Your task to perform on an android device: Where can I buy a nice beach umbrella? Image 0: 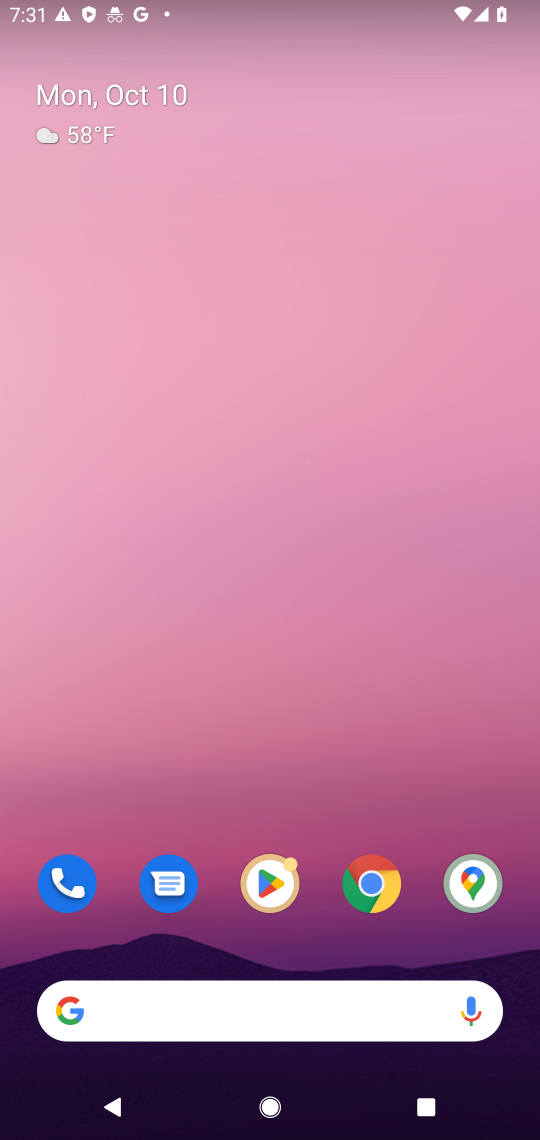
Step 0: drag from (213, 915) to (287, 520)
Your task to perform on an android device: Where can I buy a nice beach umbrella? Image 1: 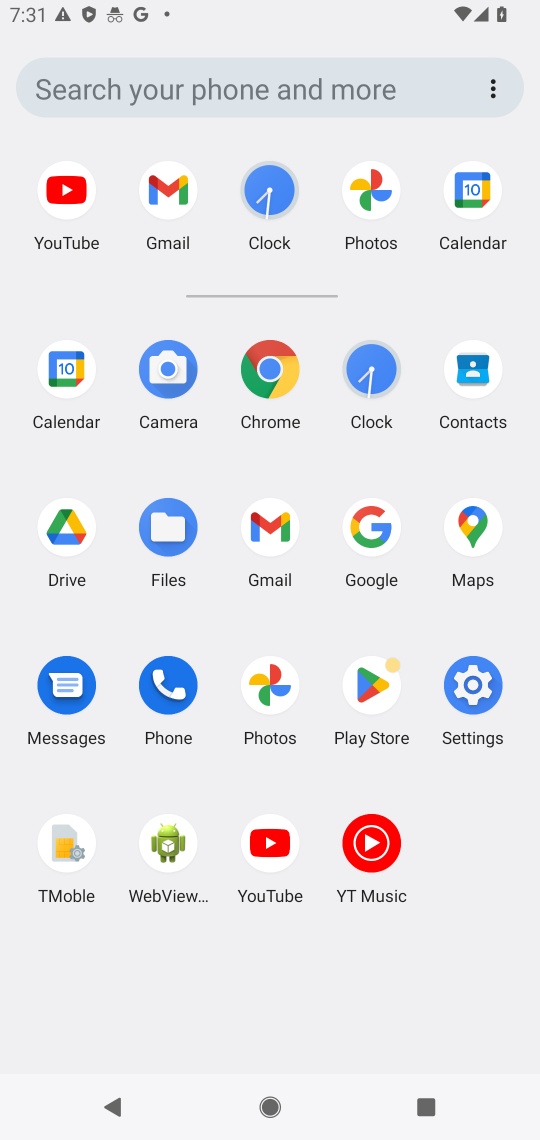
Step 1: click (368, 533)
Your task to perform on an android device: Where can I buy a nice beach umbrella? Image 2: 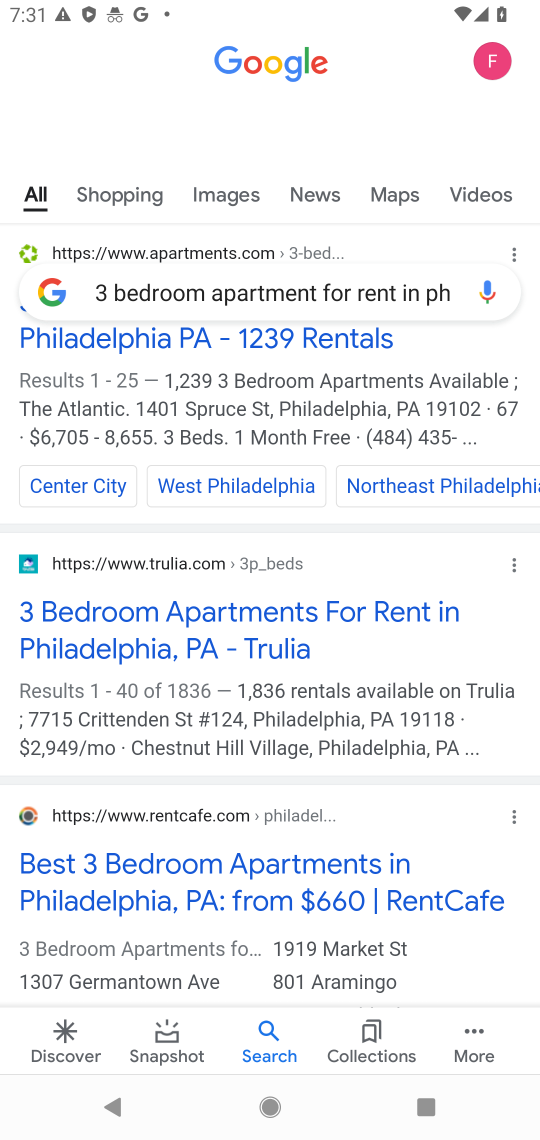
Step 2: click (417, 306)
Your task to perform on an android device: Where can I buy a nice beach umbrella? Image 3: 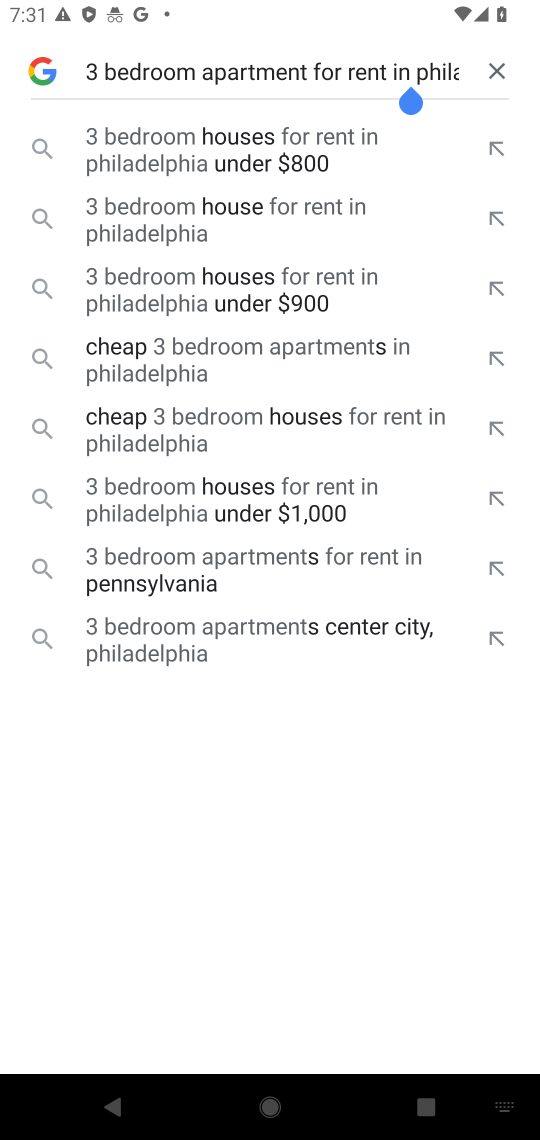
Step 3: click (494, 60)
Your task to perform on an android device: Where can I buy a nice beach umbrella? Image 4: 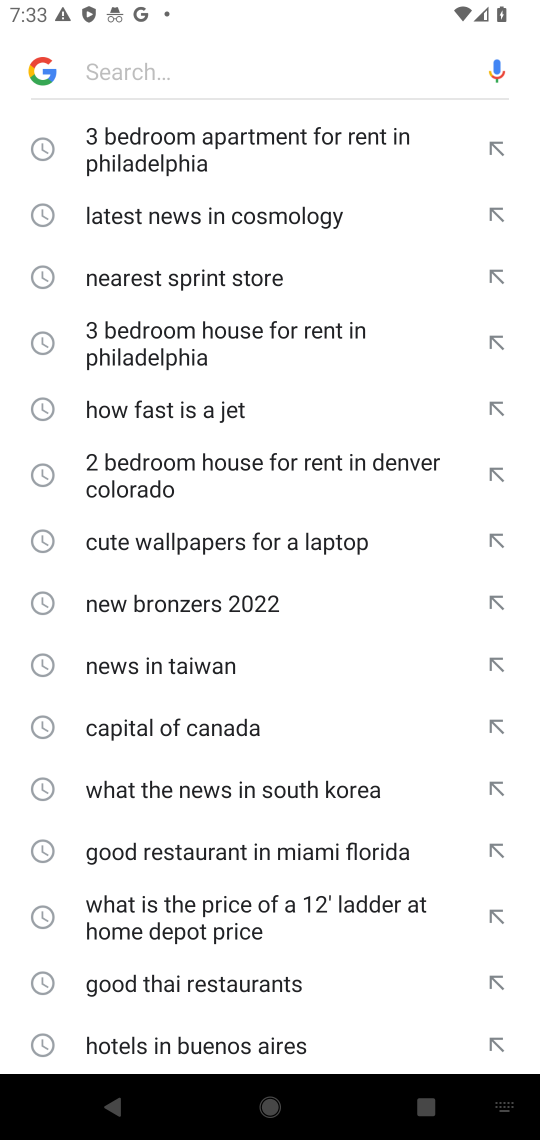
Step 4: type "beach umbrella"
Your task to perform on an android device: Where can I buy a nice beach umbrella? Image 5: 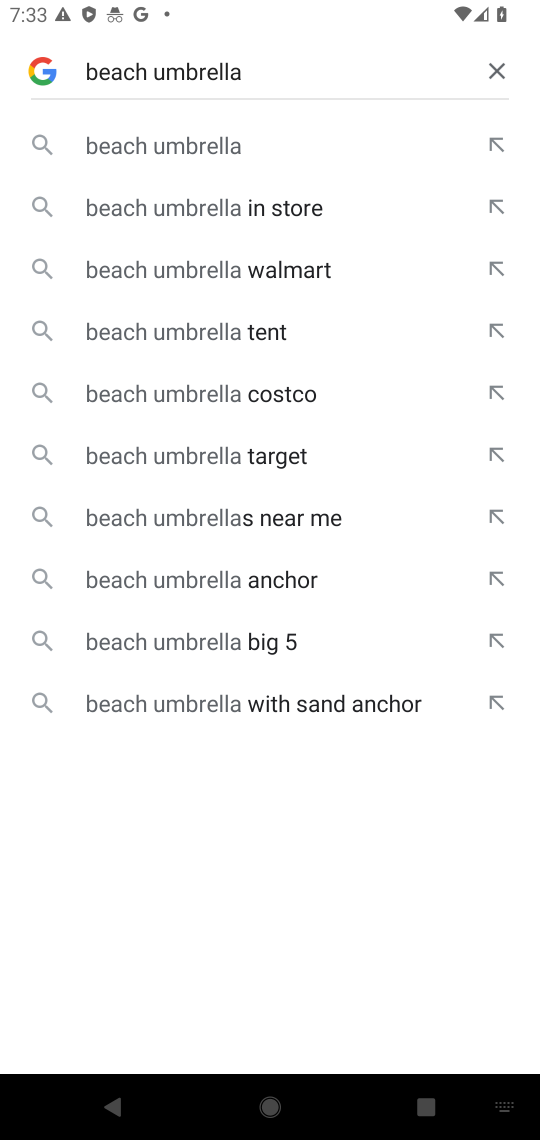
Step 5: click (243, 149)
Your task to perform on an android device: Where can I buy a nice beach umbrella? Image 6: 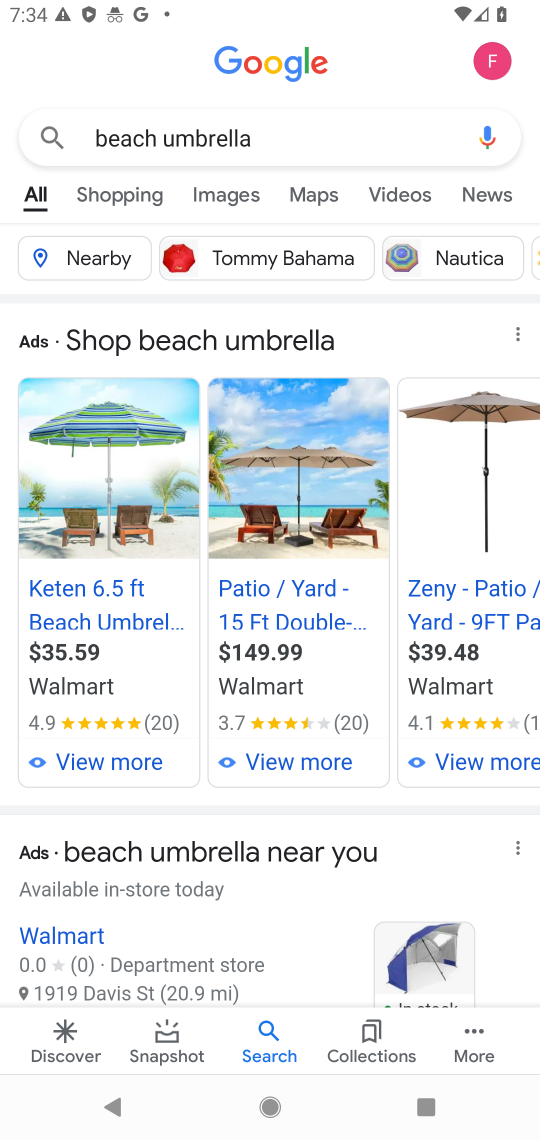
Step 6: task complete